Your task to perform on an android device: add a contact Image 0: 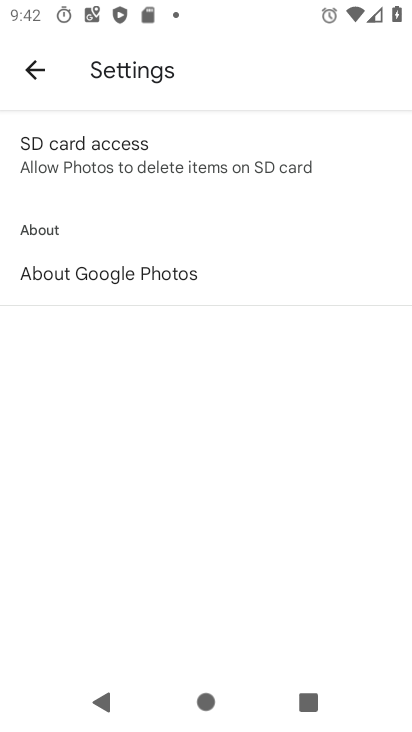
Step 0: press home button
Your task to perform on an android device: add a contact Image 1: 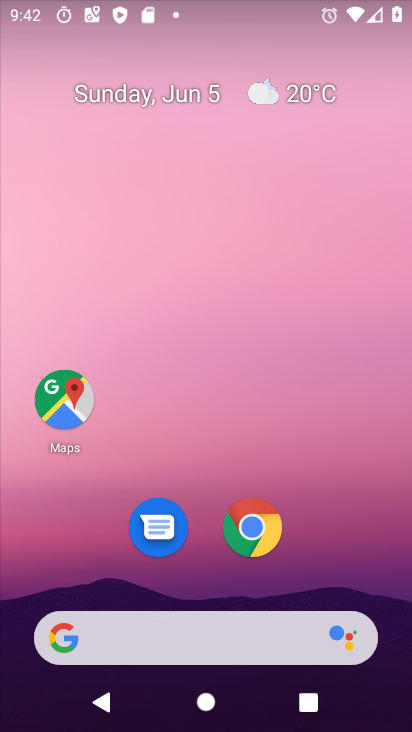
Step 1: drag from (332, 511) to (395, 1)
Your task to perform on an android device: add a contact Image 2: 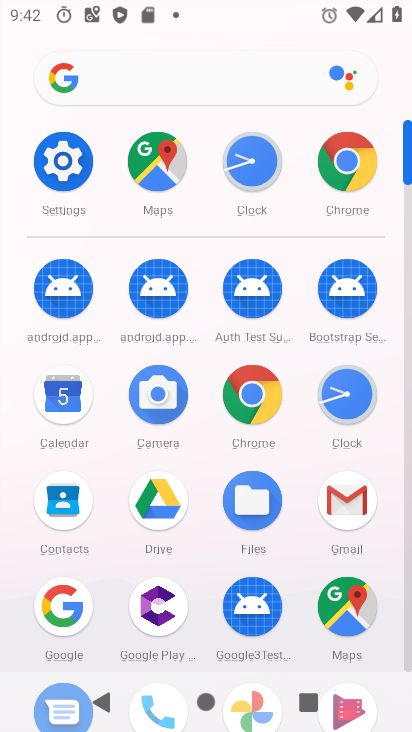
Step 2: drag from (383, 590) to (343, 164)
Your task to perform on an android device: add a contact Image 3: 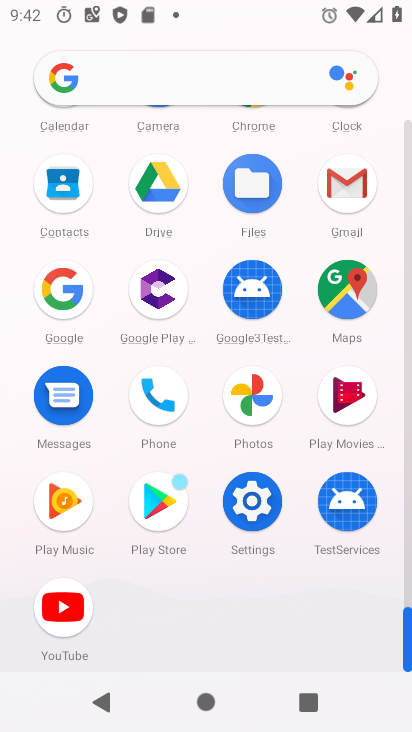
Step 3: click (154, 414)
Your task to perform on an android device: add a contact Image 4: 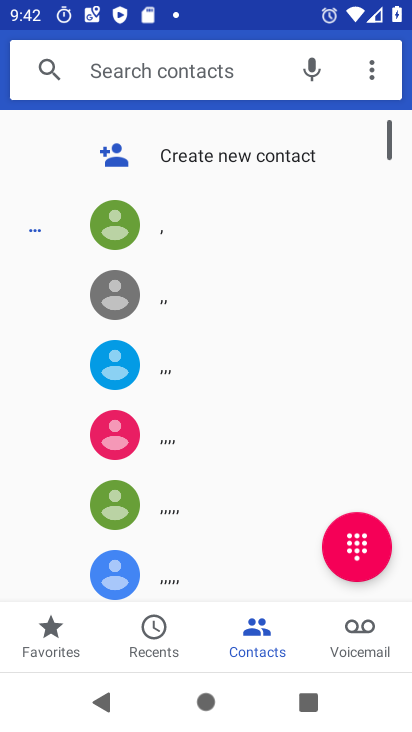
Step 4: click (202, 151)
Your task to perform on an android device: add a contact Image 5: 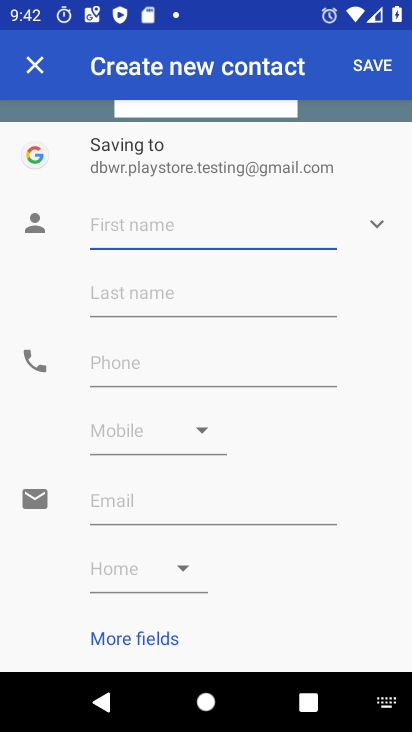
Step 5: type "ttttt"
Your task to perform on an android device: add a contact Image 6: 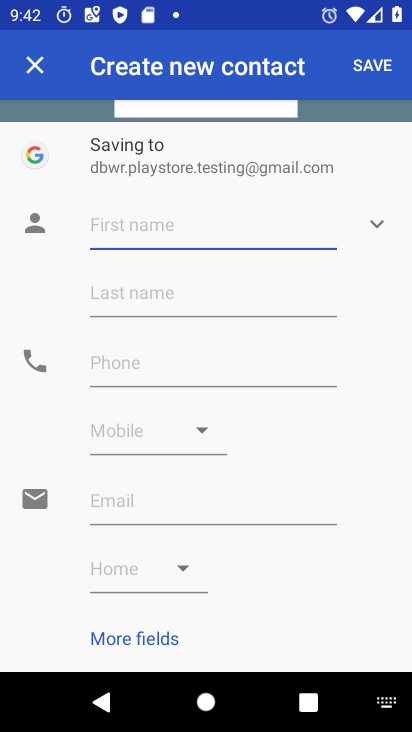
Step 6: click (188, 364)
Your task to perform on an android device: add a contact Image 7: 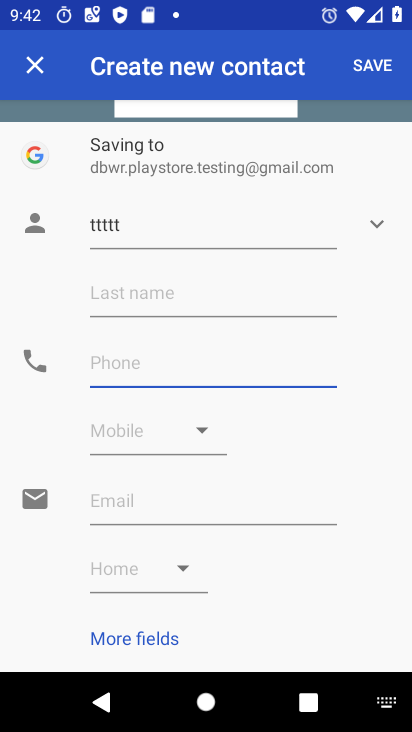
Step 7: type "45677654"
Your task to perform on an android device: add a contact Image 8: 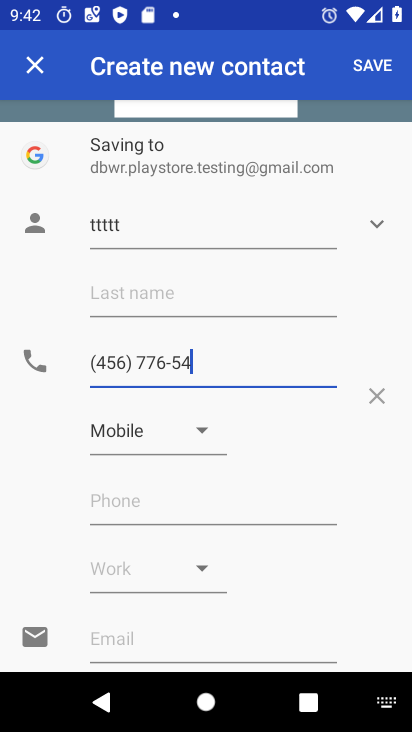
Step 8: click (389, 75)
Your task to perform on an android device: add a contact Image 9: 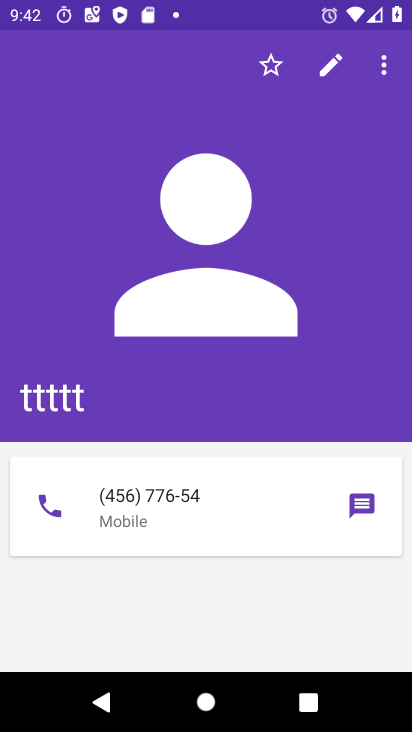
Step 9: task complete